Your task to perform on an android device: open a bookmark in the chrome app Image 0: 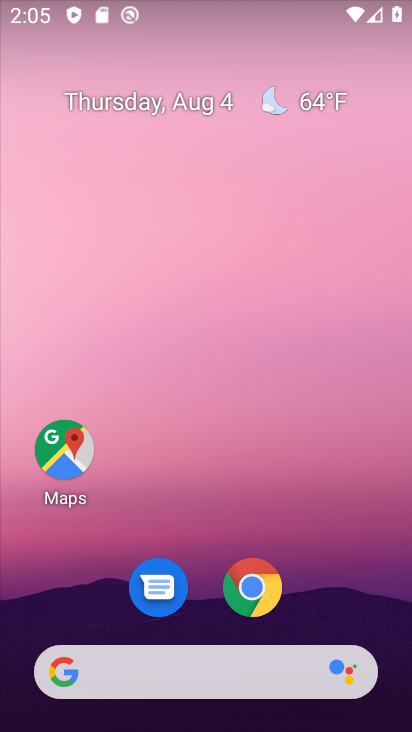
Step 0: click (254, 580)
Your task to perform on an android device: open a bookmark in the chrome app Image 1: 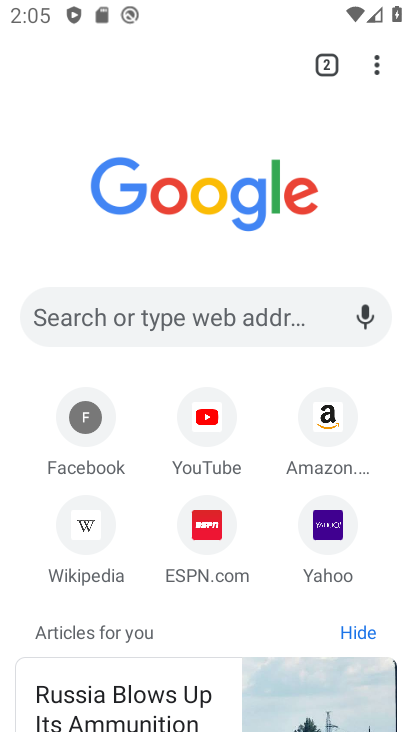
Step 1: click (374, 59)
Your task to perform on an android device: open a bookmark in the chrome app Image 2: 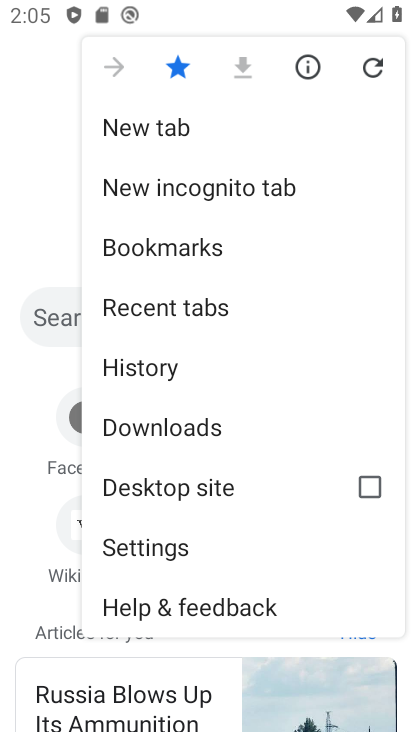
Step 2: click (160, 246)
Your task to perform on an android device: open a bookmark in the chrome app Image 3: 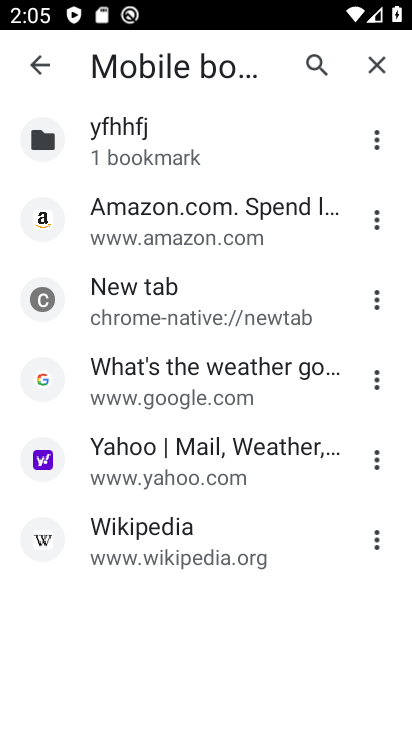
Step 3: task complete